Your task to perform on an android device: check out phone information Image 0: 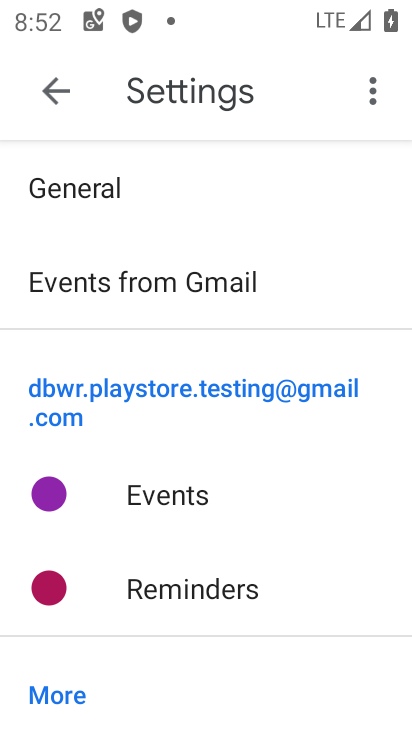
Step 0: press home button
Your task to perform on an android device: check out phone information Image 1: 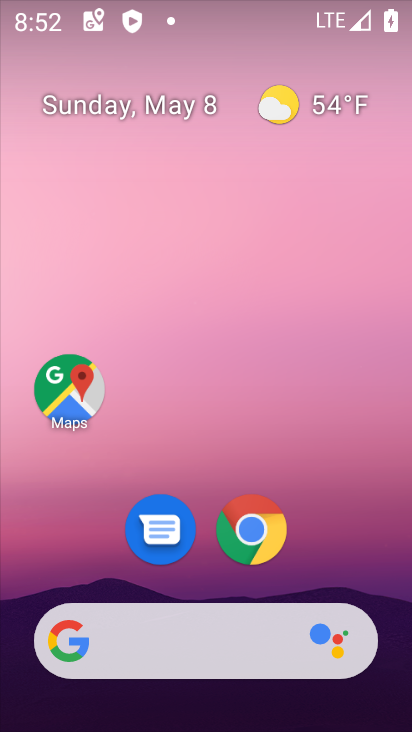
Step 1: drag from (340, 558) to (399, 110)
Your task to perform on an android device: check out phone information Image 2: 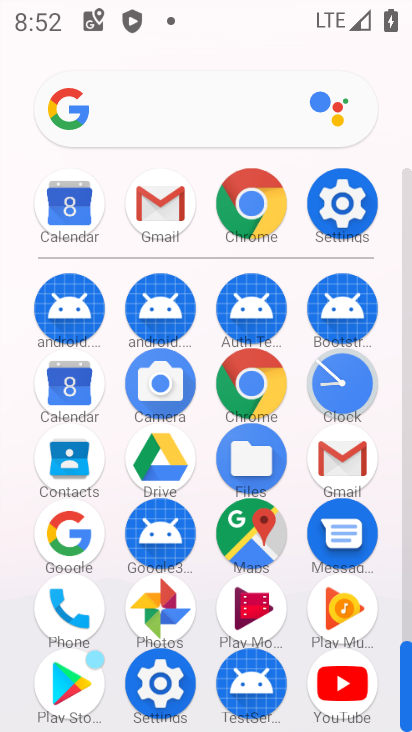
Step 2: click (359, 206)
Your task to perform on an android device: check out phone information Image 3: 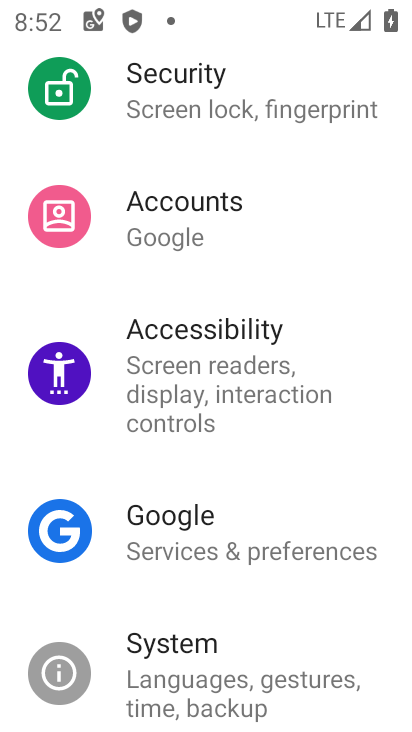
Step 3: task complete